Your task to perform on an android device: Open settings Image 0: 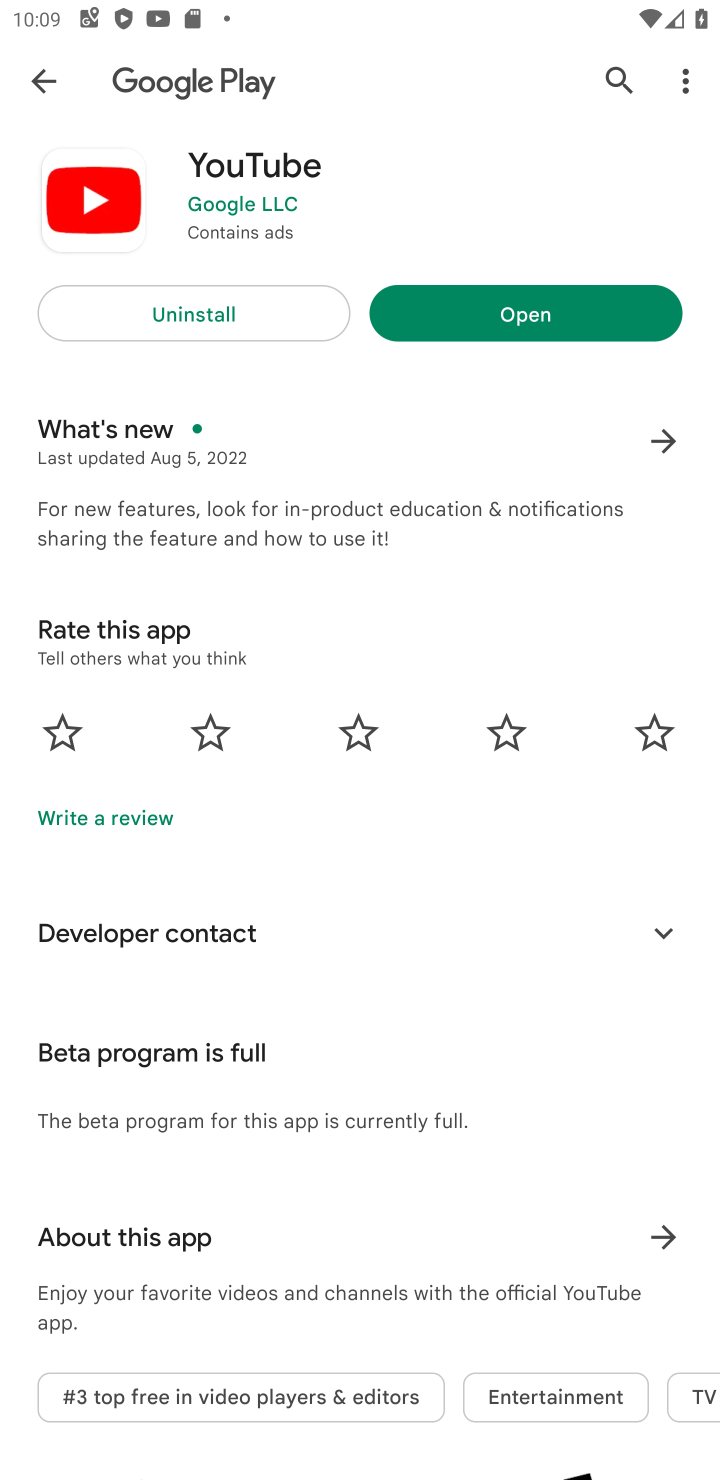
Step 0: press home button
Your task to perform on an android device: Open settings Image 1: 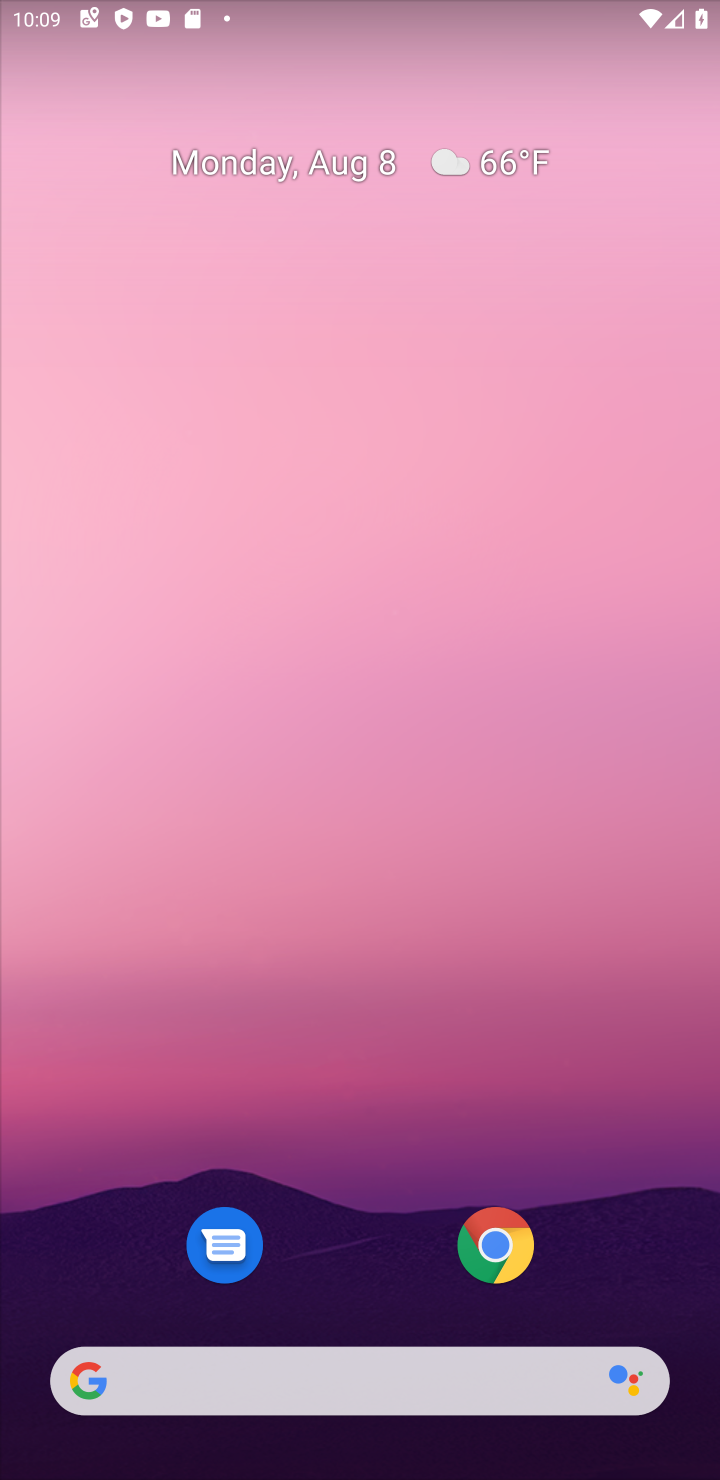
Step 1: drag from (359, 1076) to (383, 237)
Your task to perform on an android device: Open settings Image 2: 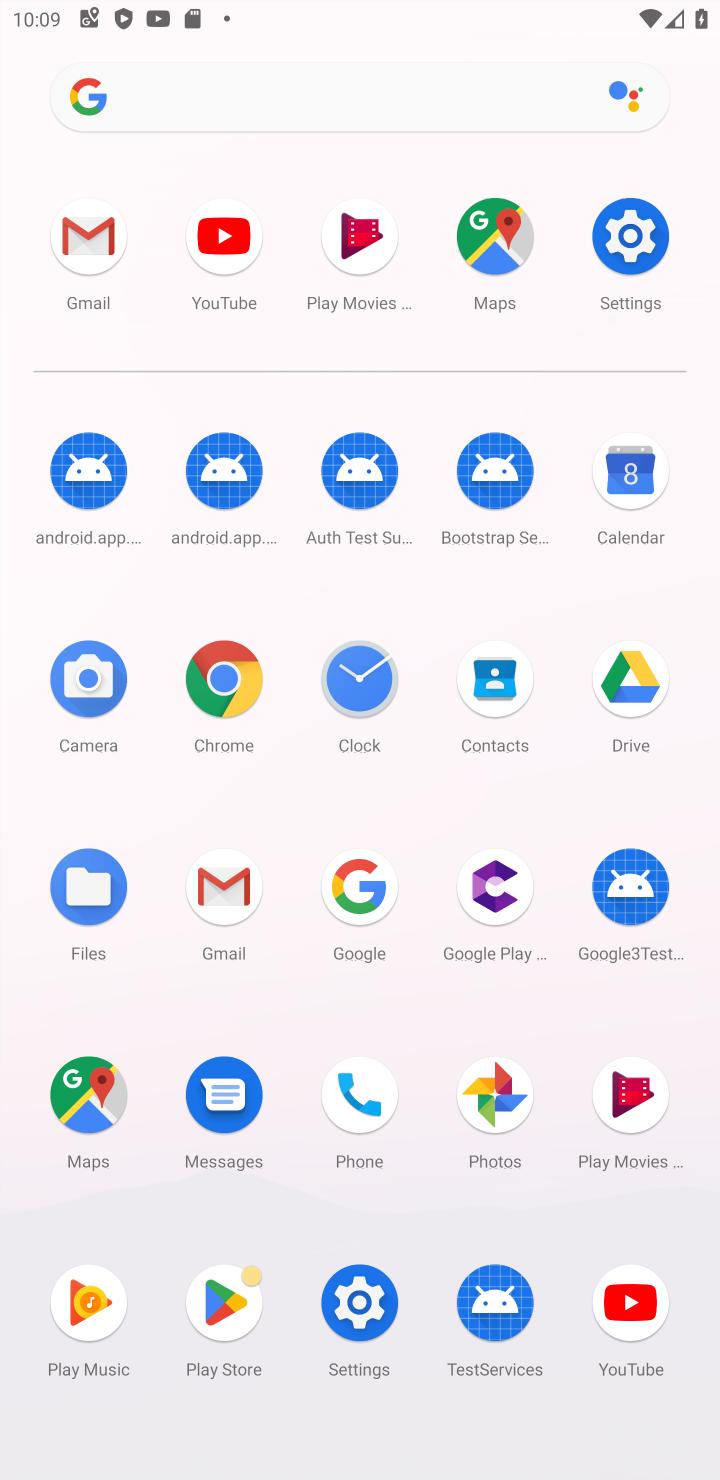
Step 2: click (629, 238)
Your task to perform on an android device: Open settings Image 3: 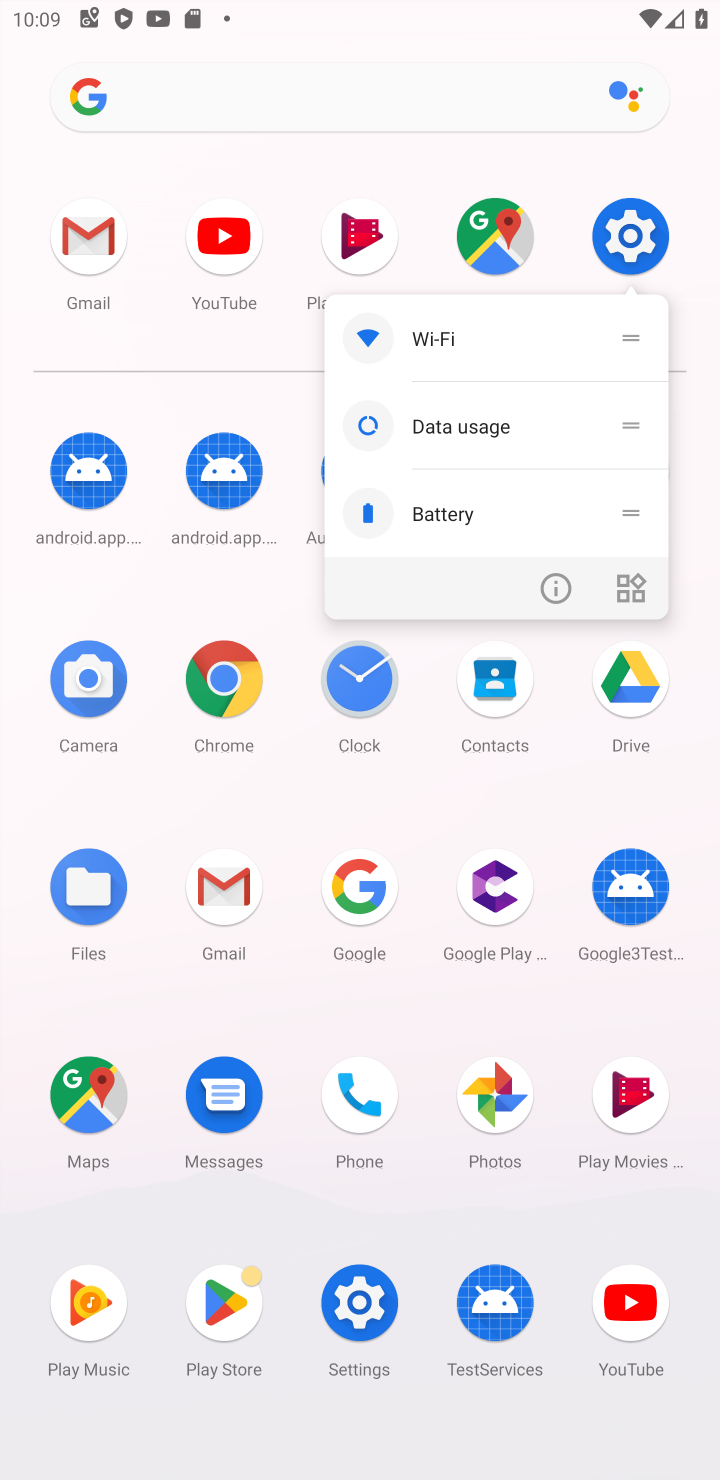
Step 3: click (629, 238)
Your task to perform on an android device: Open settings Image 4: 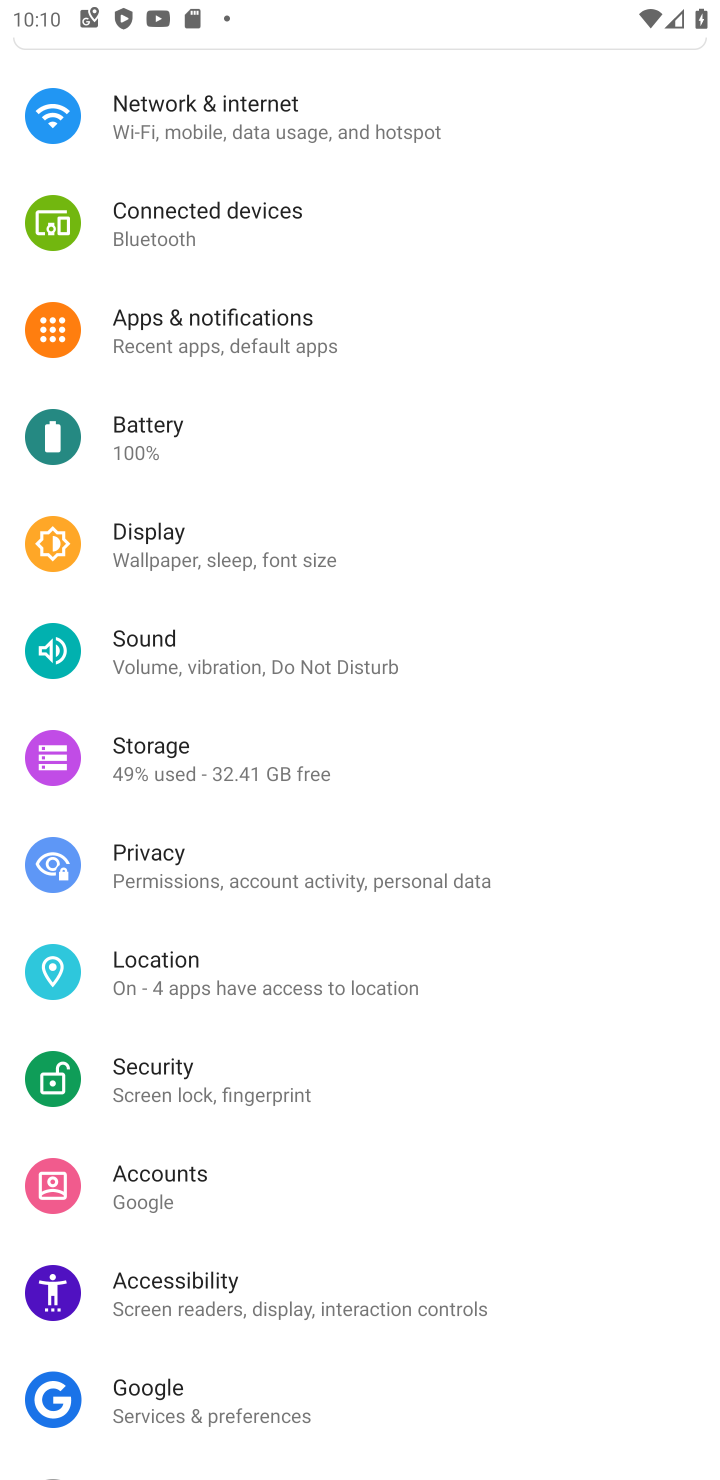
Step 4: task complete